Your task to perform on an android device: delete browsing data in the chrome app Image 0: 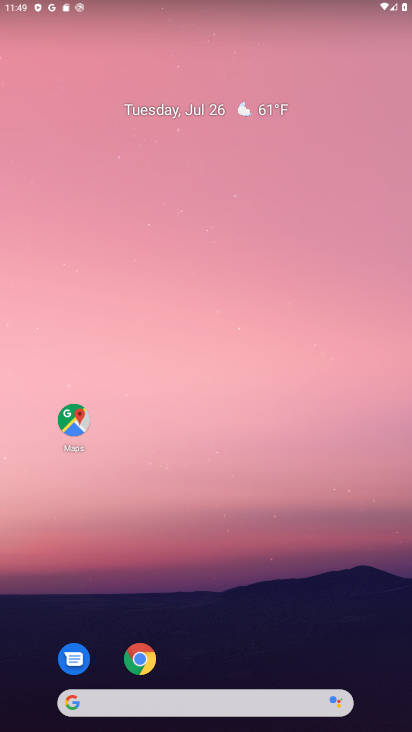
Step 0: drag from (206, 665) to (206, 8)
Your task to perform on an android device: delete browsing data in the chrome app Image 1: 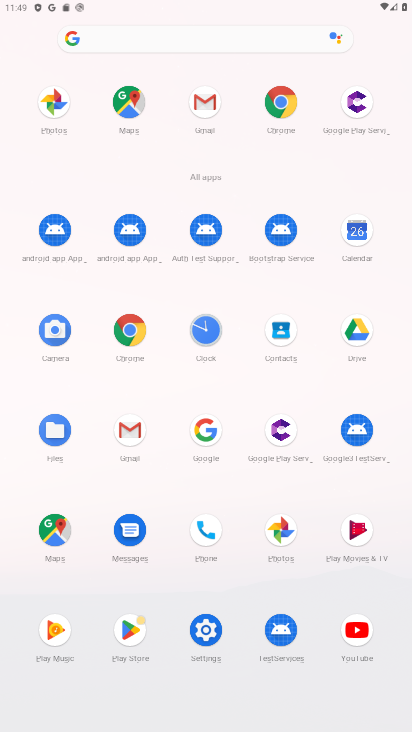
Step 1: click (280, 100)
Your task to perform on an android device: delete browsing data in the chrome app Image 2: 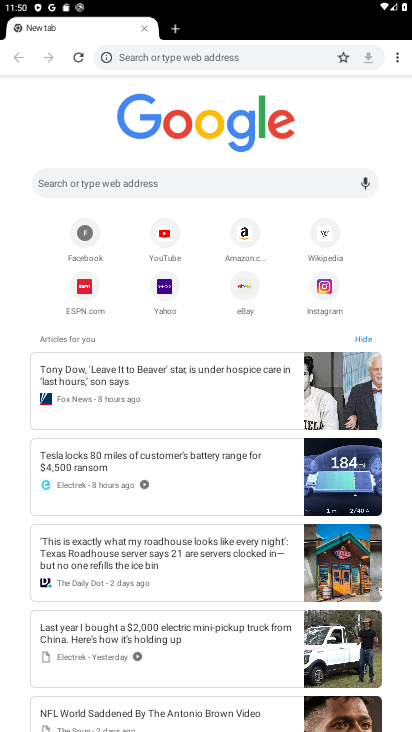
Step 2: click (395, 56)
Your task to perform on an android device: delete browsing data in the chrome app Image 3: 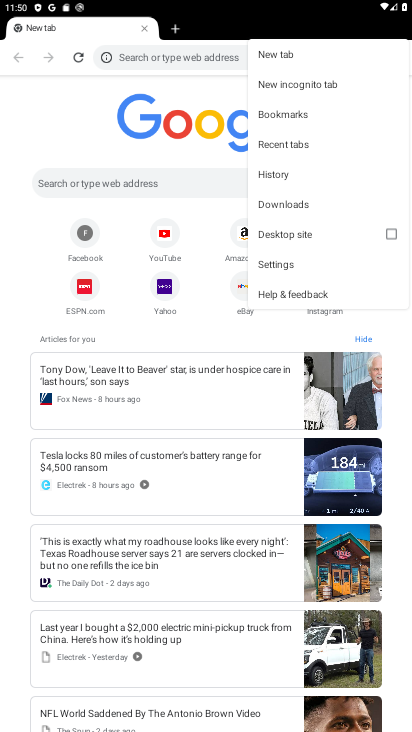
Step 3: click (298, 168)
Your task to perform on an android device: delete browsing data in the chrome app Image 4: 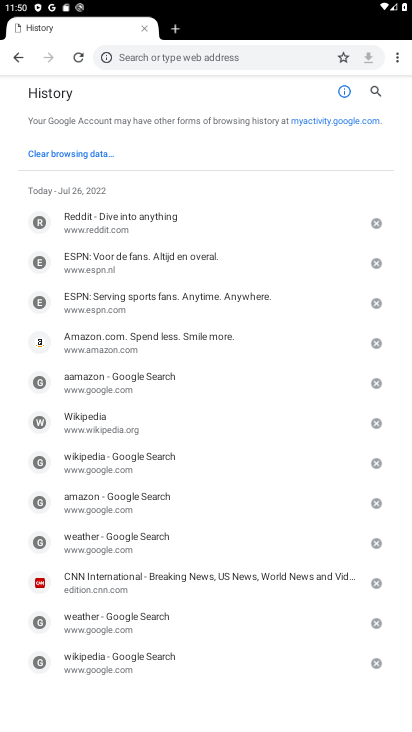
Step 4: click (70, 149)
Your task to perform on an android device: delete browsing data in the chrome app Image 5: 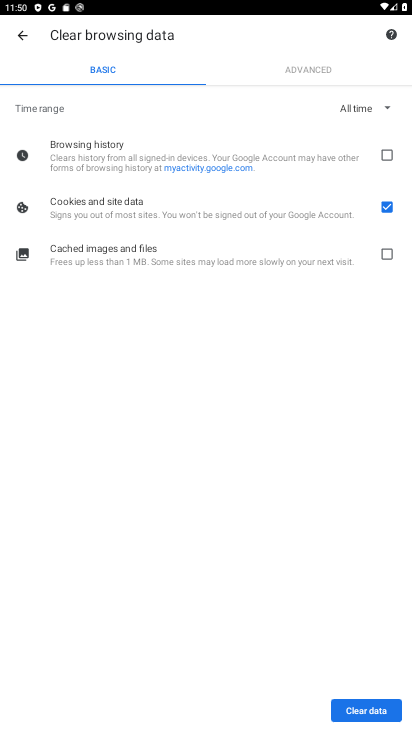
Step 5: click (382, 157)
Your task to perform on an android device: delete browsing data in the chrome app Image 6: 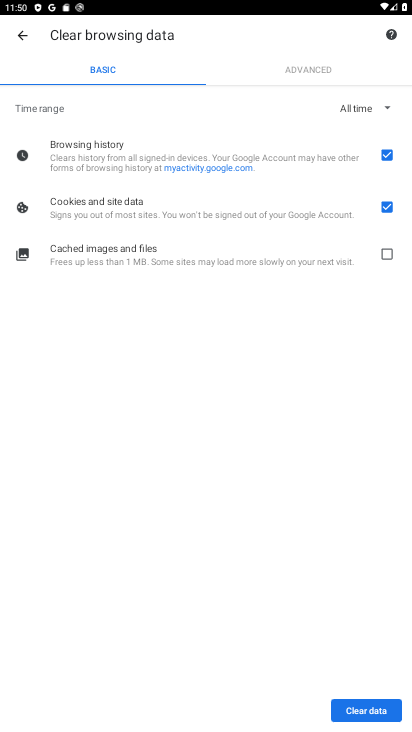
Step 6: click (387, 204)
Your task to perform on an android device: delete browsing data in the chrome app Image 7: 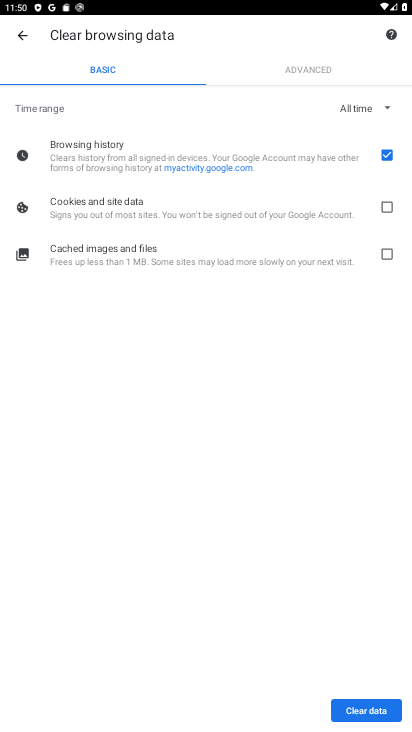
Step 7: click (373, 720)
Your task to perform on an android device: delete browsing data in the chrome app Image 8: 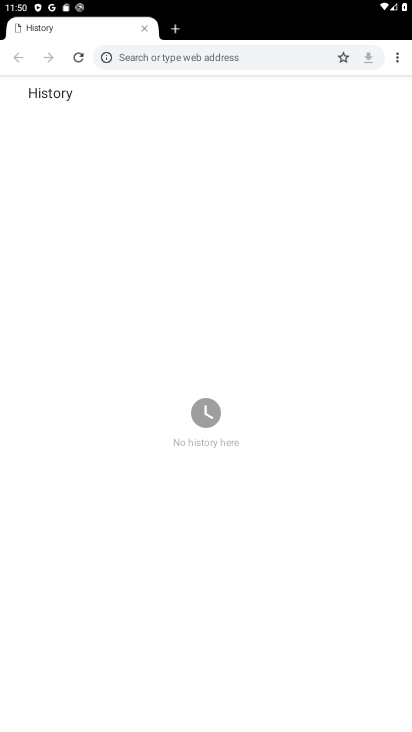
Step 8: task complete